Your task to perform on an android device: Go to Google maps Image 0: 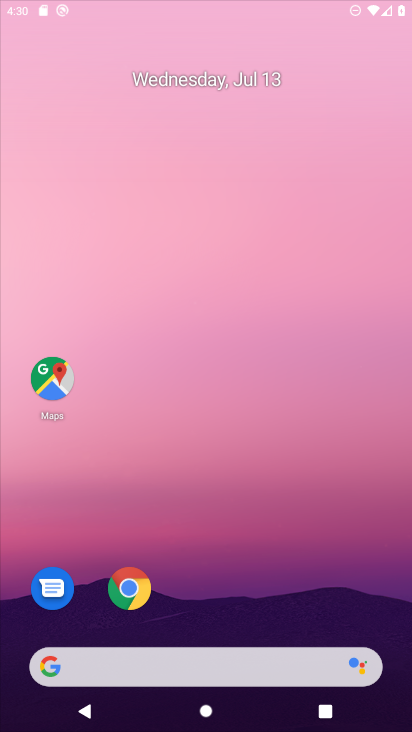
Step 0: press back button
Your task to perform on an android device: Go to Google maps Image 1: 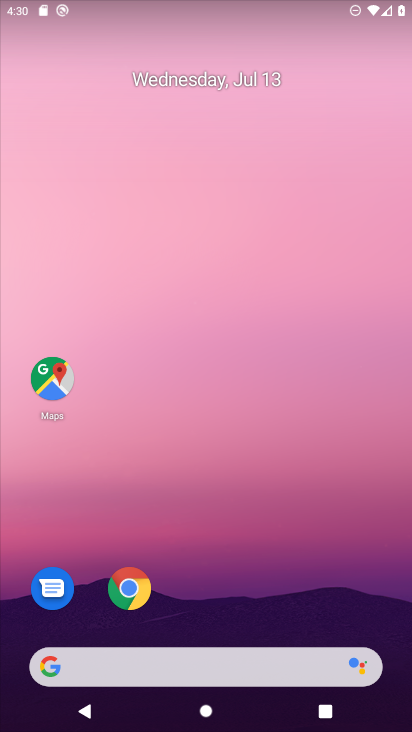
Step 1: drag from (273, 571) to (188, 234)
Your task to perform on an android device: Go to Google maps Image 2: 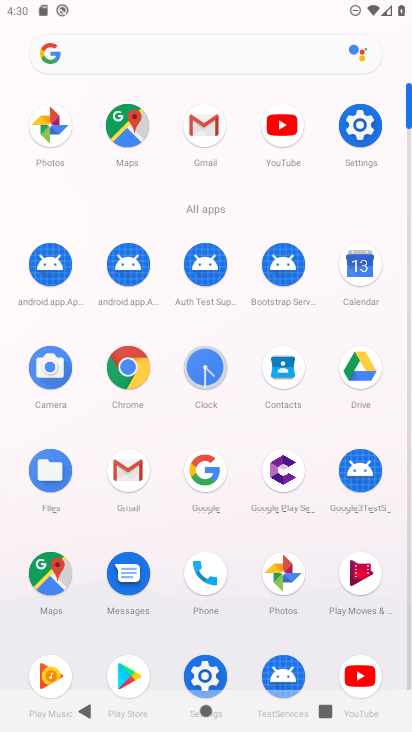
Step 2: click (218, 260)
Your task to perform on an android device: Go to Google maps Image 3: 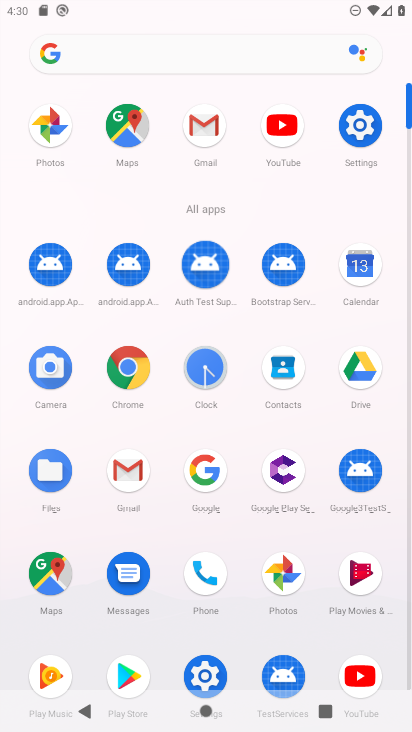
Step 3: click (34, 565)
Your task to perform on an android device: Go to Google maps Image 4: 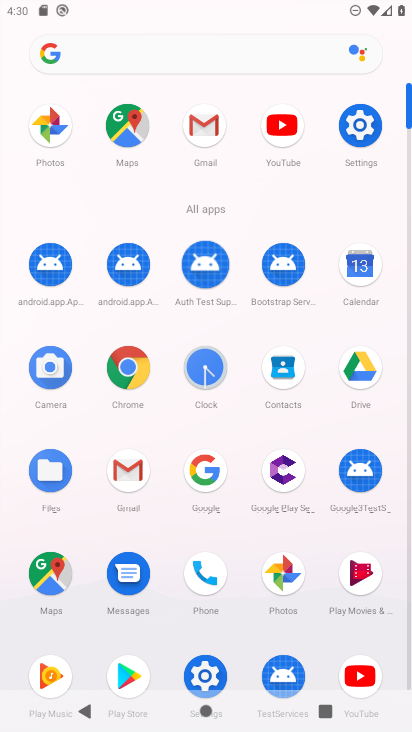
Step 4: click (43, 563)
Your task to perform on an android device: Go to Google maps Image 5: 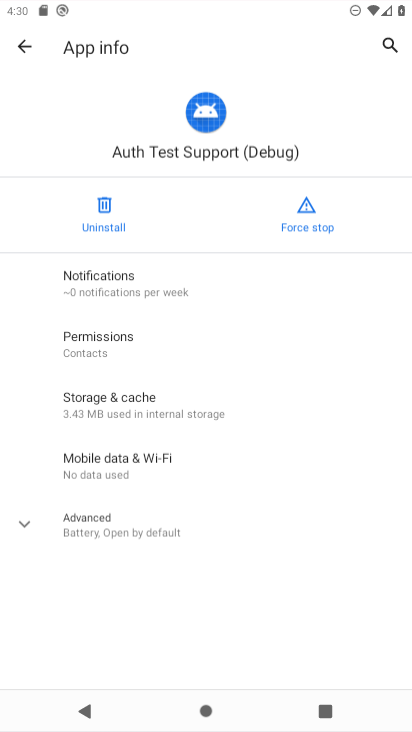
Step 5: click (44, 562)
Your task to perform on an android device: Go to Google maps Image 6: 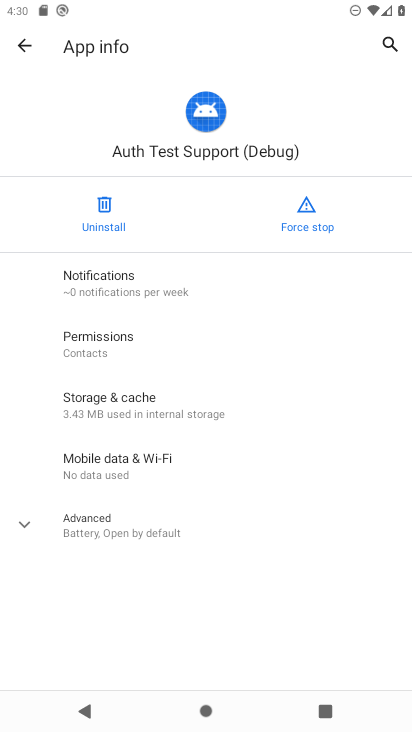
Step 6: click (44, 562)
Your task to perform on an android device: Go to Google maps Image 7: 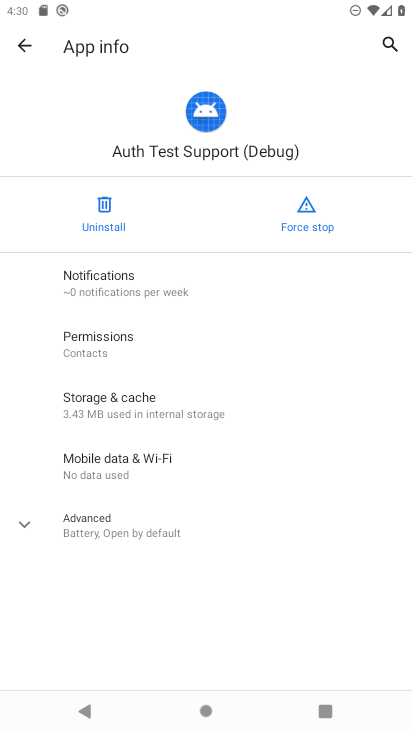
Step 7: click (29, 41)
Your task to perform on an android device: Go to Google maps Image 8: 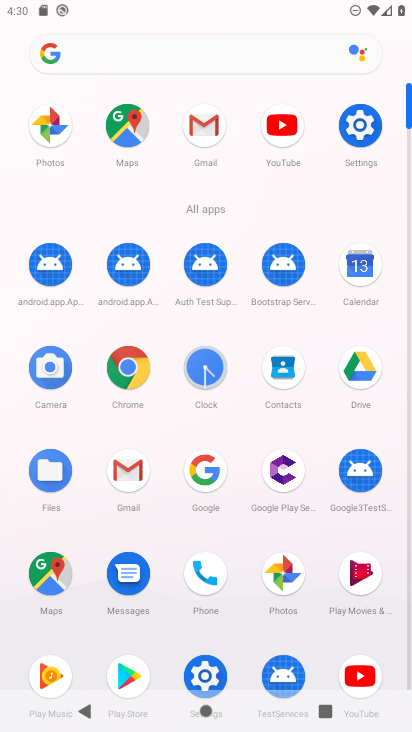
Step 8: click (55, 573)
Your task to perform on an android device: Go to Google maps Image 9: 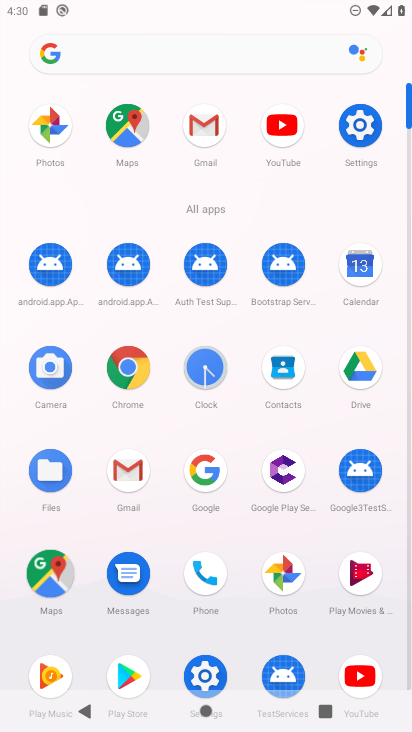
Step 9: click (54, 573)
Your task to perform on an android device: Go to Google maps Image 10: 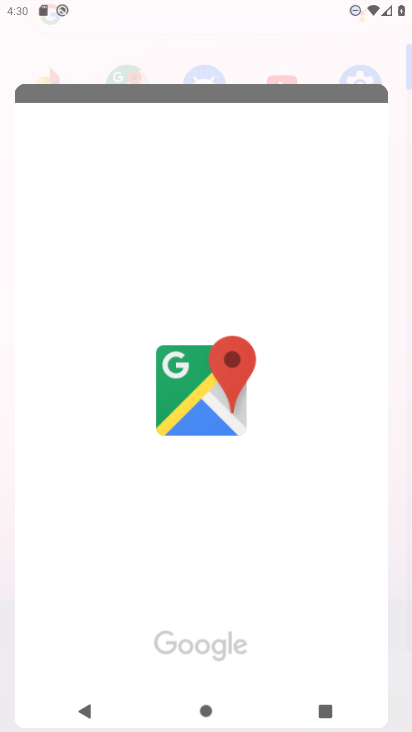
Step 10: click (54, 573)
Your task to perform on an android device: Go to Google maps Image 11: 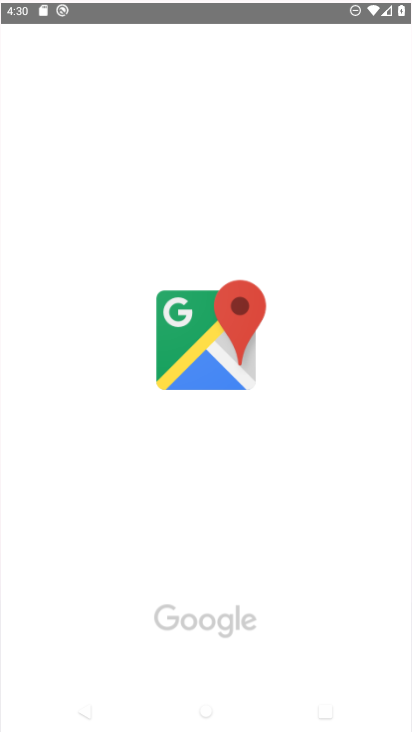
Step 11: click (54, 573)
Your task to perform on an android device: Go to Google maps Image 12: 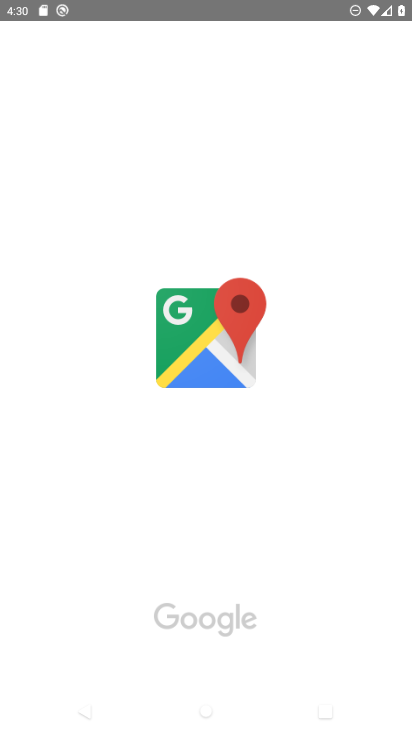
Step 12: click (54, 573)
Your task to perform on an android device: Go to Google maps Image 13: 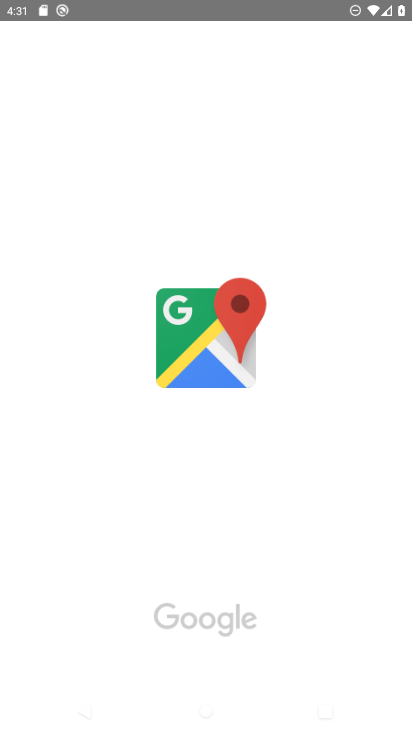
Step 13: task complete